Your task to perform on an android device: turn off priority inbox in the gmail app Image 0: 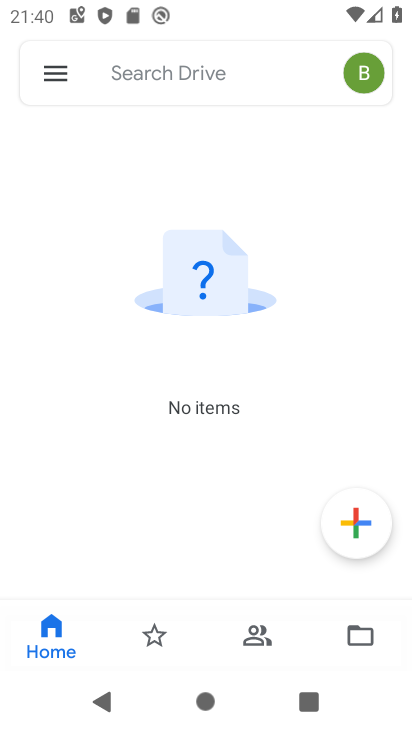
Step 0: press home button
Your task to perform on an android device: turn off priority inbox in the gmail app Image 1: 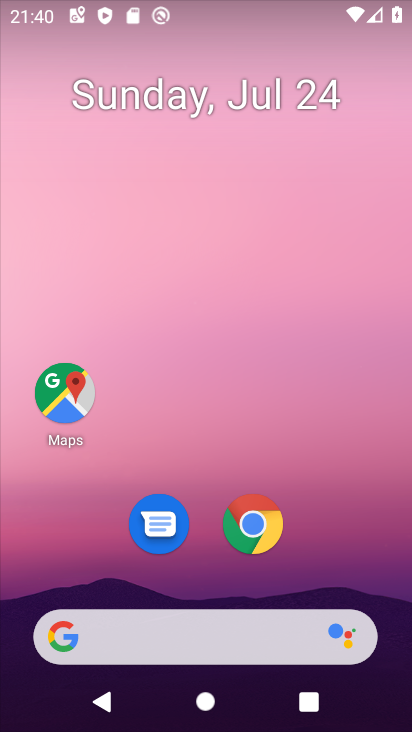
Step 1: drag from (199, 623) to (279, 127)
Your task to perform on an android device: turn off priority inbox in the gmail app Image 2: 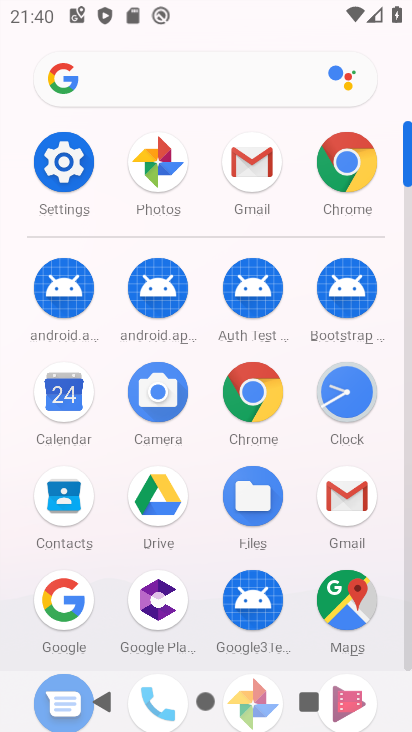
Step 2: click (247, 171)
Your task to perform on an android device: turn off priority inbox in the gmail app Image 3: 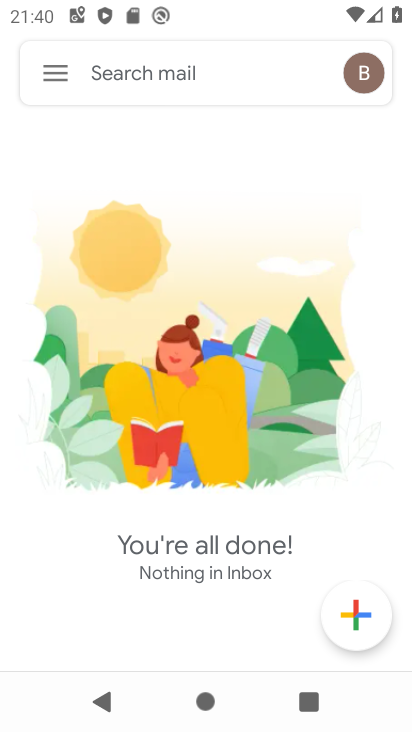
Step 3: click (49, 74)
Your task to perform on an android device: turn off priority inbox in the gmail app Image 4: 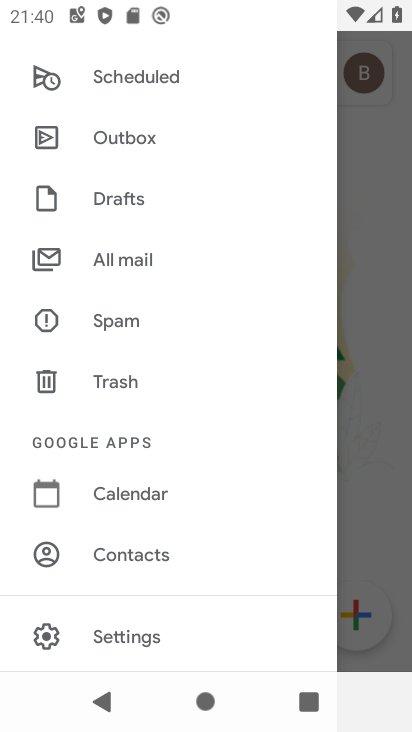
Step 4: click (134, 633)
Your task to perform on an android device: turn off priority inbox in the gmail app Image 5: 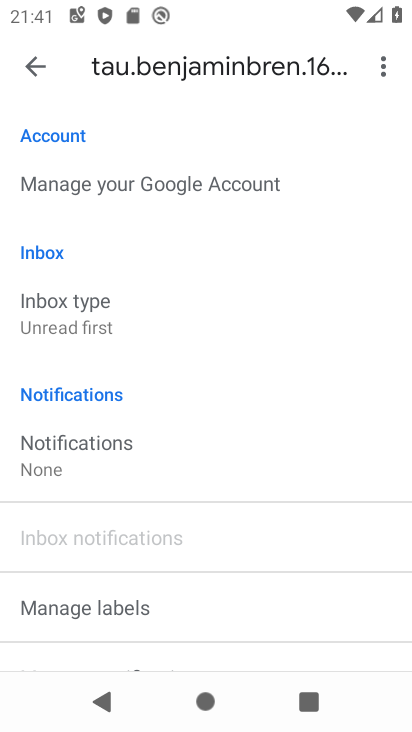
Step 5: click (77, 317)
Your task to perform on an android device: turn off priority inbox in the gmail app Image 6: 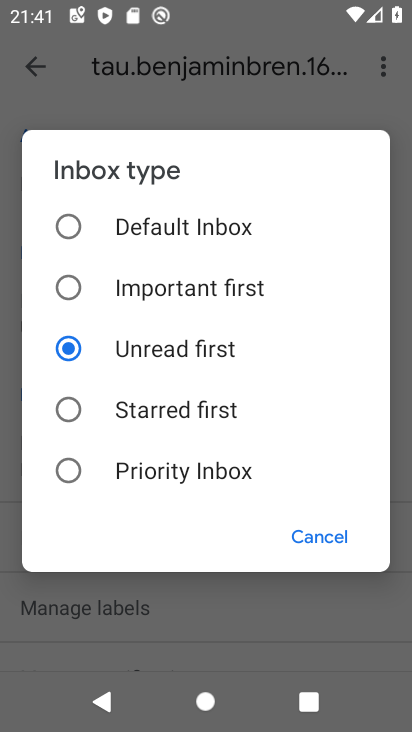
Step 6: task complete